Your task to perform on an android device: Go to CNN.com Image 0: 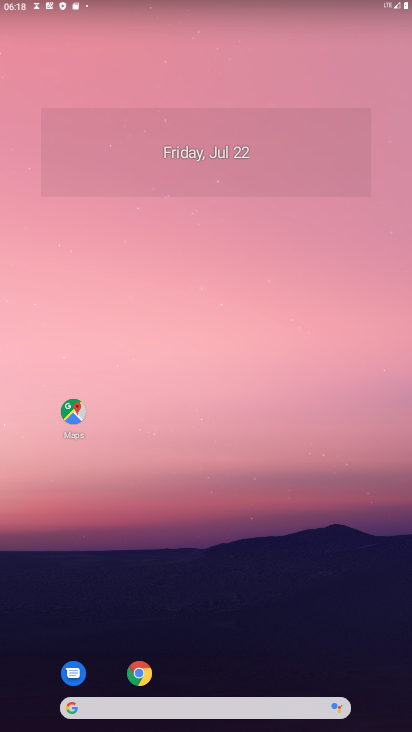
Step 0: press home button
Your task to perform on an android device: Go to CNN.com Image 1: 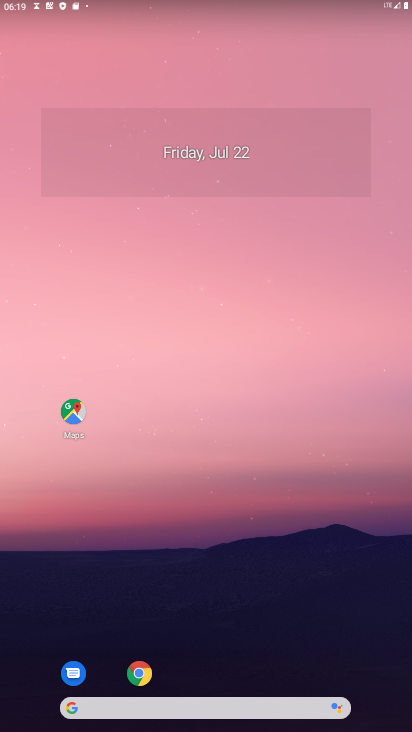
Step 1: click (80, 702)
Your task to perform on an android device: Go to CNN.com Image 2: 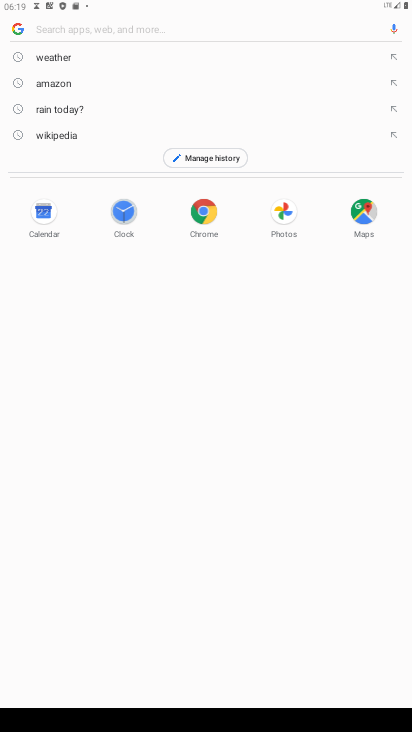
Step 2: type " CNN.com"
Your task to perform on an android device: Go to CNN.com Image 3: 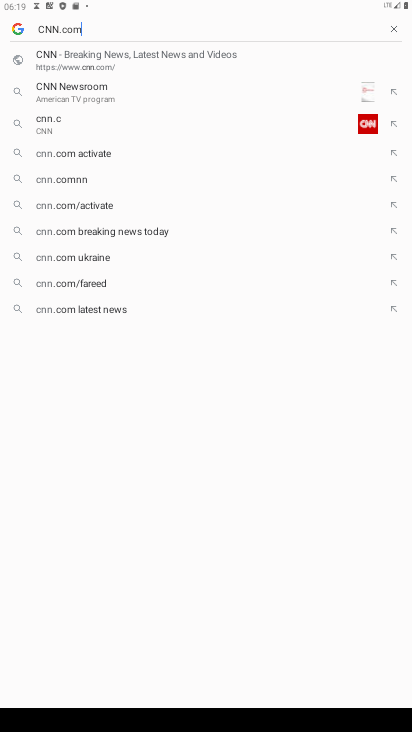
Step 3: press enter
Your task to perform on an android device: Go to CNN.com Image 4: 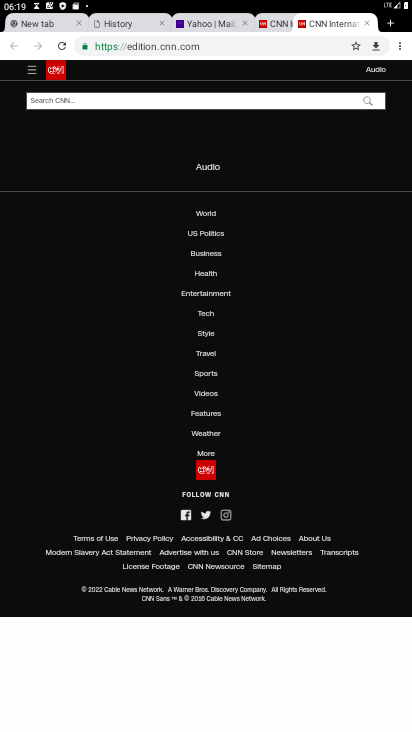
Step 4: task complete